Your task to perform on an android device: Open battery settings Image 0: 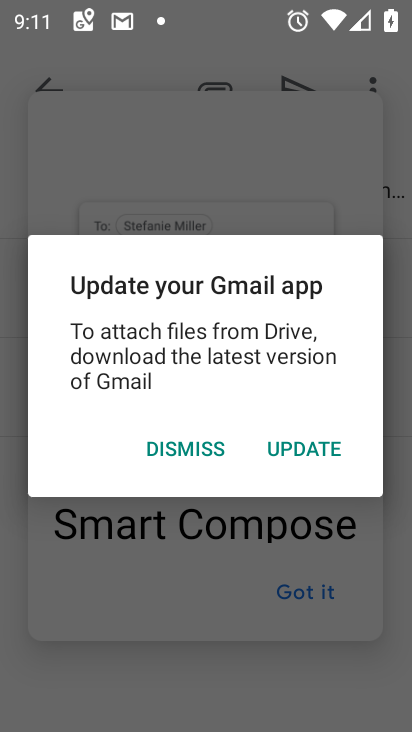
Step 0: press home button
Your task to perform on an android device: Open battery settings Image 1: 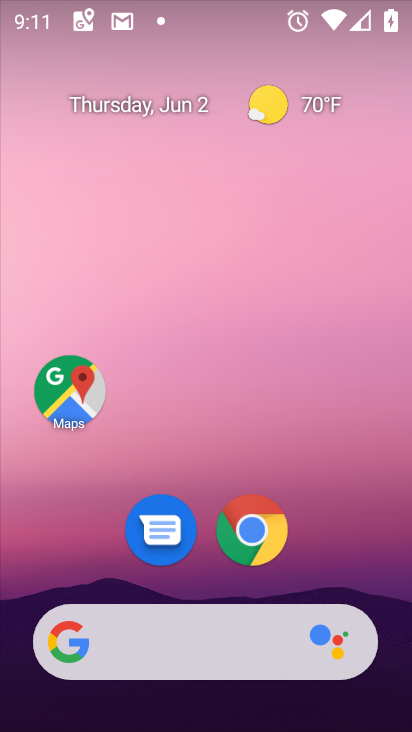
Step 1: drag from (114, 576) to (104, 191)
Your task to perform on an android device: Open battery settings Image 2: 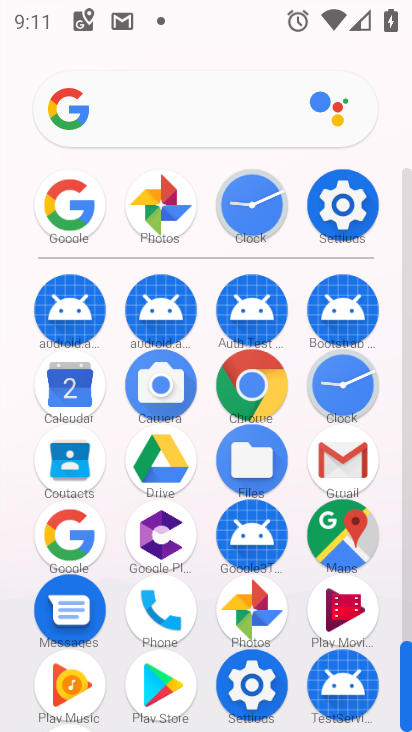
Step 2: click (244, 689)
Your task to perform on an android device: Open battery settings Image 3: 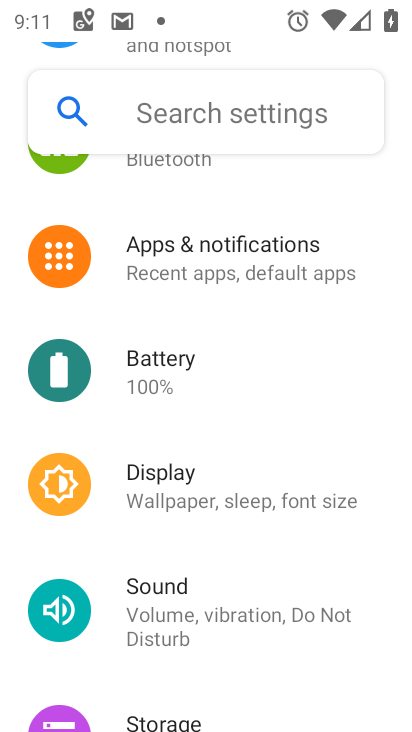
Step 3: click (179, 363)
Your task to perform on an android device: Open battery settings Image 4: 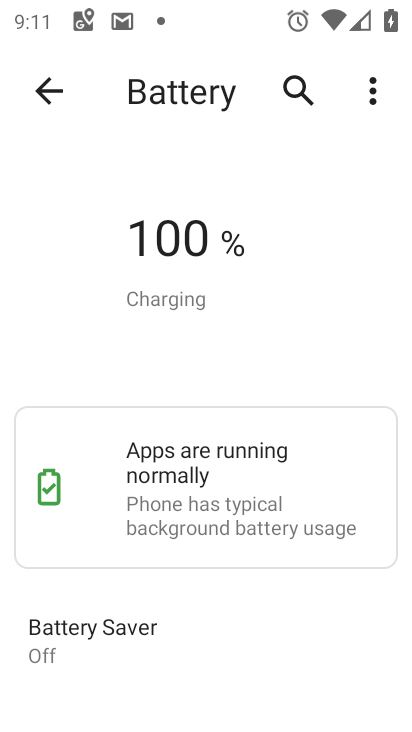
Step 4: task complete